Your task to perform on an android device: all mails in gmail Image 0: 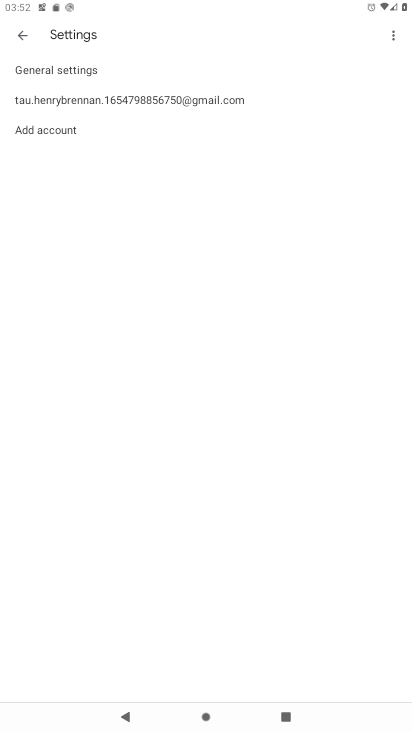
Step 0: click (12, 29)
Your task to perform on an android device: all mails in gmail Image 1: 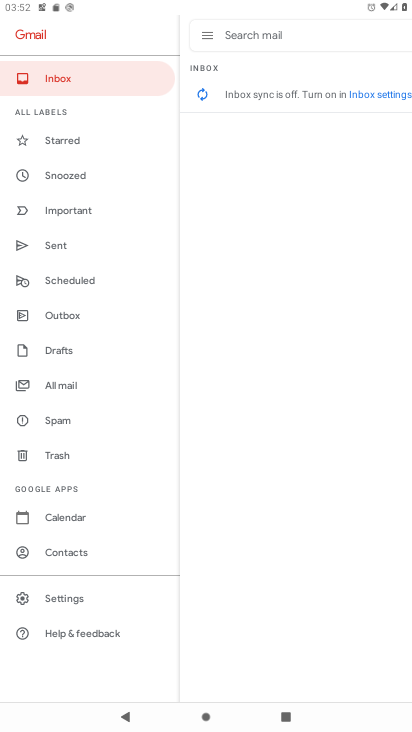
Step 1: click (65, 385)
Your task to perform on an android device: all mails in gmail Image 2: 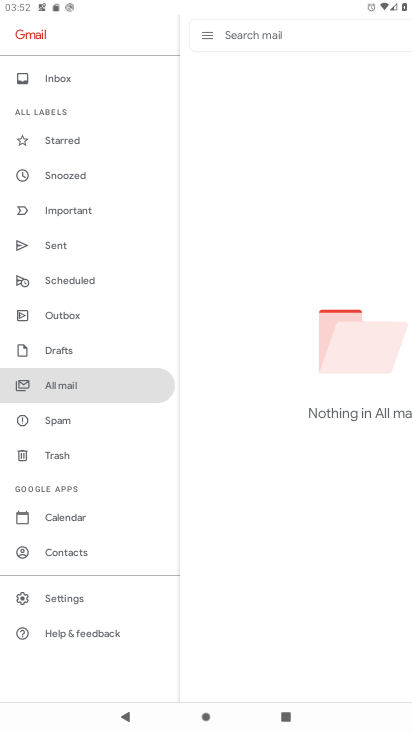
Step 2: task complete